Your task to perform on an android device: Search for seafood restaurants on Google Maps Image 0: 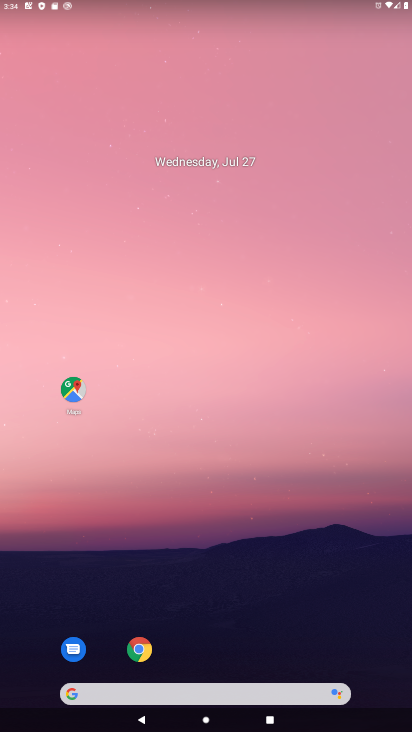
Step 0: click (74, 391)
Your task to perform on an android device: Search for seafood restaurants on Google Maps Image 1: 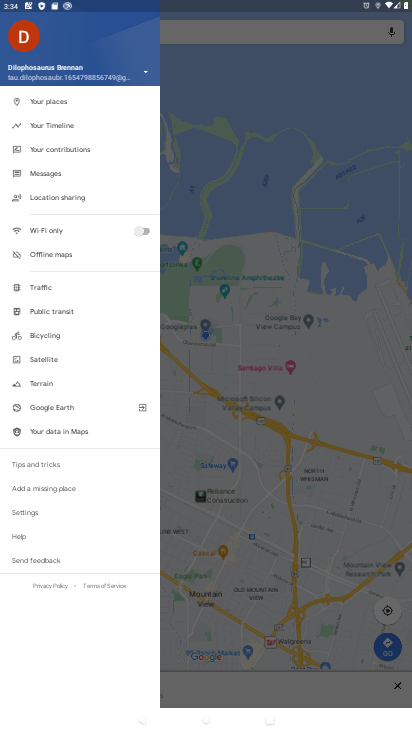
Step 1: click (262, 189)
Your task to perform on an android device: Search for seafood restaurants on Google Maps Image 2: 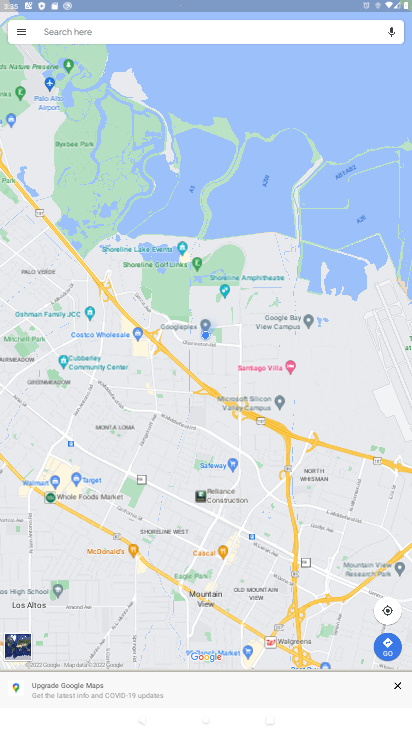
Step 2: click (112, 38)
Your task to perform on an android device: Search for seafood restaurants on Google Maps Image 3: 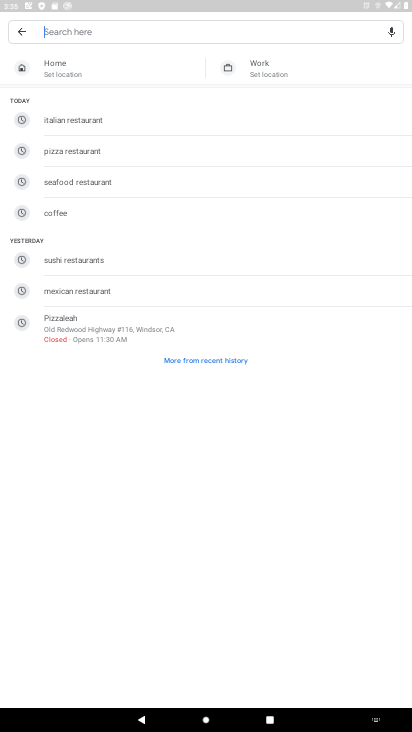
Step 3: type "seafood restaurants"
Your task to perform on an android device: Search for seafood restaurants on Google Maps Image 4: 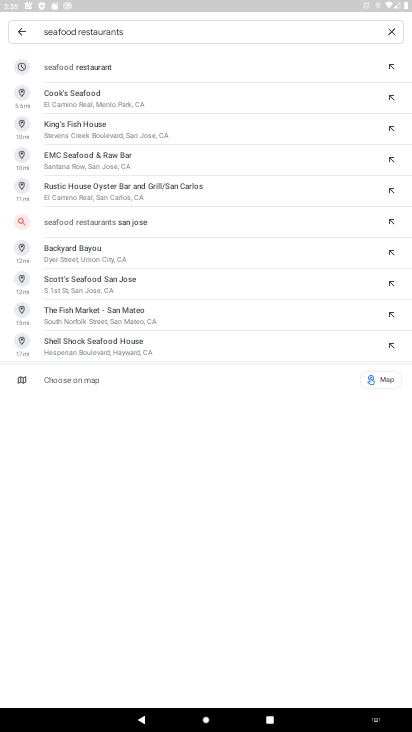
Step 4: click (80, 58)
Your task to perform on an android device: Search for seafood restaurants on Google Maps Image 5: 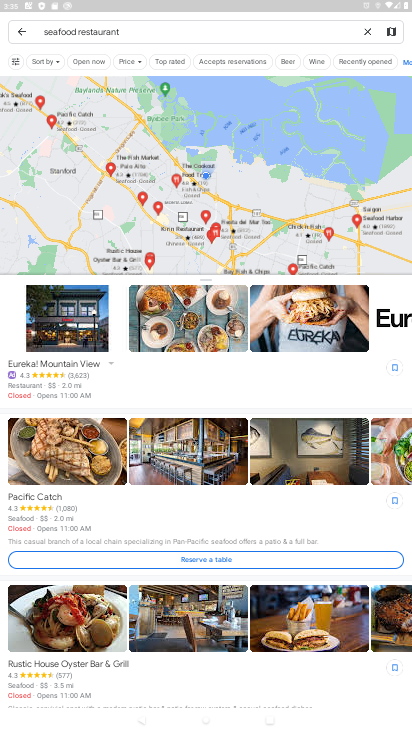
Step 5: task complete